Your task to perform on an android device: Go to settings Image 0: 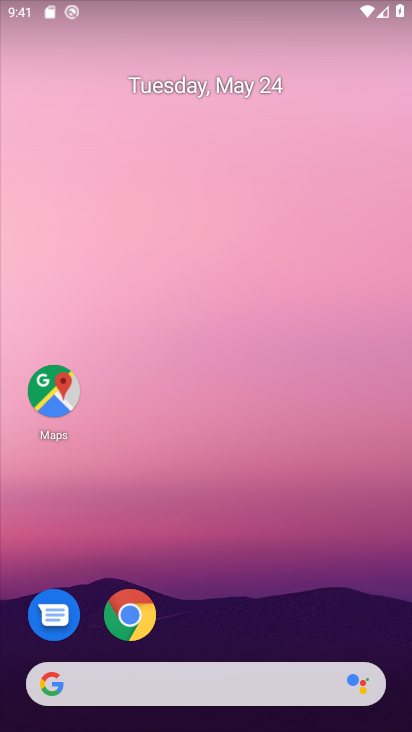
Step 0: drag from (364, 637) to (381, 286)
Your task to perform on an android device: Go to settings Image 1: 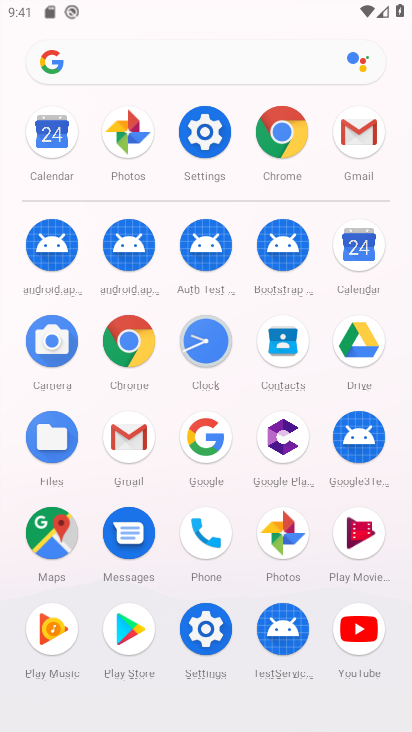
Step 1: click (201, 134)
Your task to perform on an android device: Go to settings Image 2: 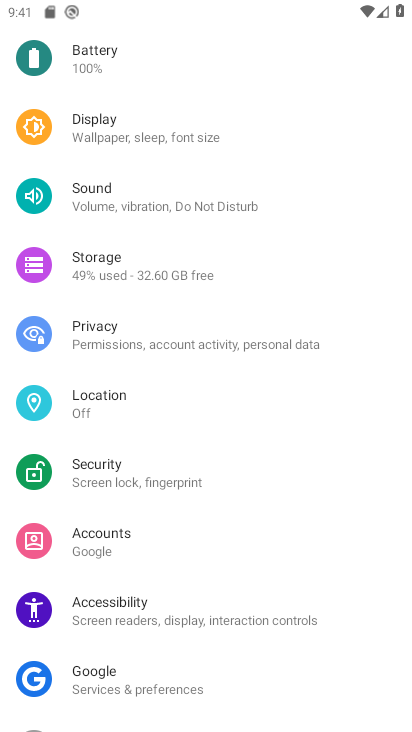
Step 2: task complete